Your task to perform on an android device: Search for Italian restaurants on Maps Image 0: 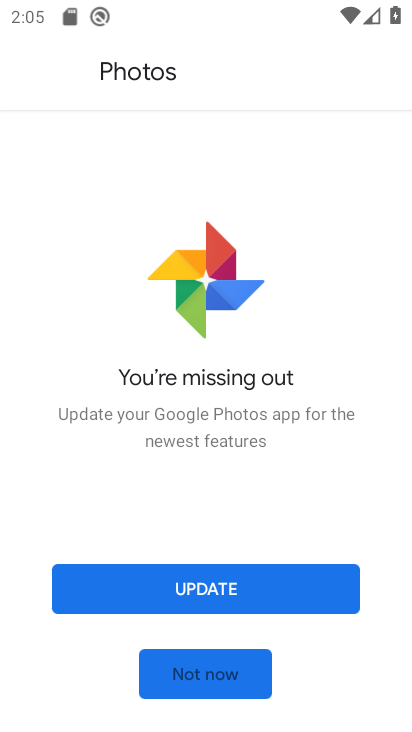
Step 0: press back button
Your task to perform on an android device: Search for Italian restaurants on Maps Image 1: 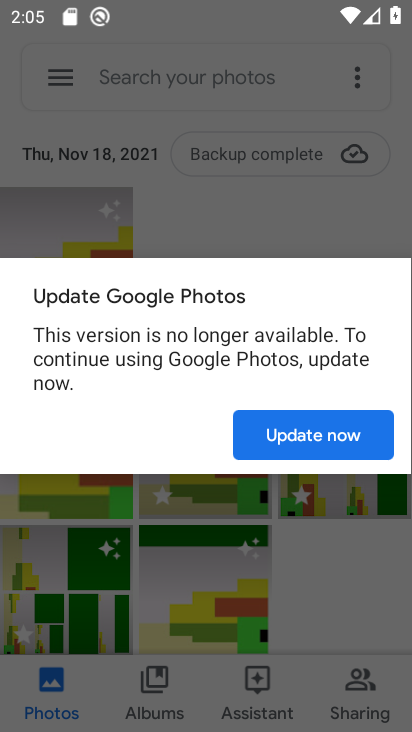
Step 1: press back button
Your task to perform on an android device: Search for Italian restaurants on Maps Image 2: 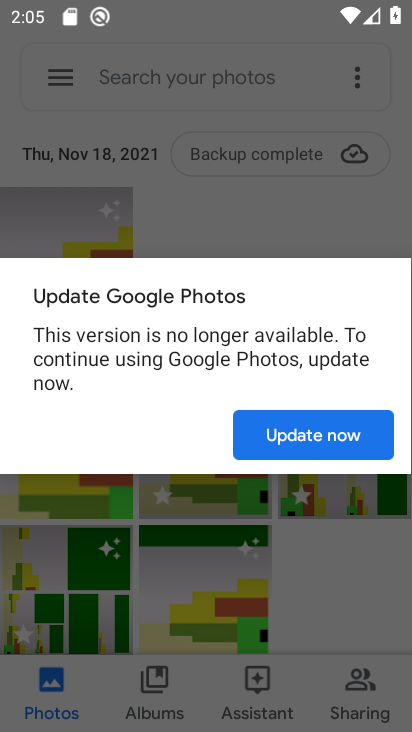
Step 2: press home button
Your task to perform on an android device: Search for Italian restaurants on Maps Image 3: 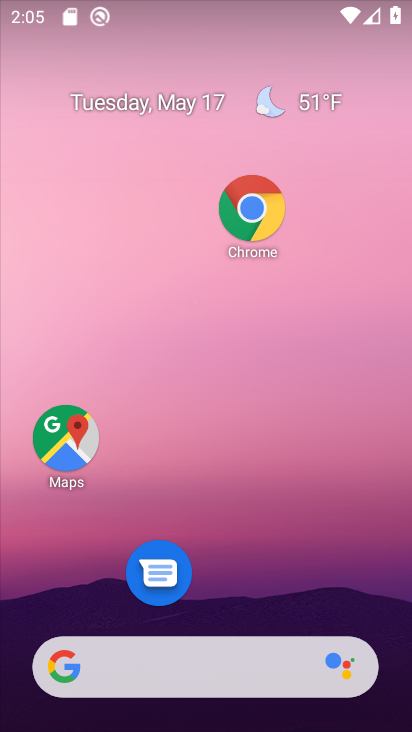
Step 3: drag from (277, 621) to (281, 98)
Your task to perform on an android device: Search for Italian restaurants on Maps Image 4: 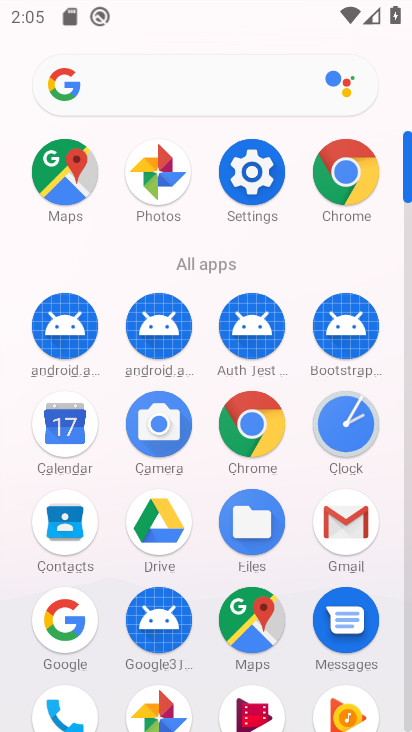
Step 4: click (261, 595)
Your task to perform on an android device: Search for Italian restaurants on Maps Image 5: 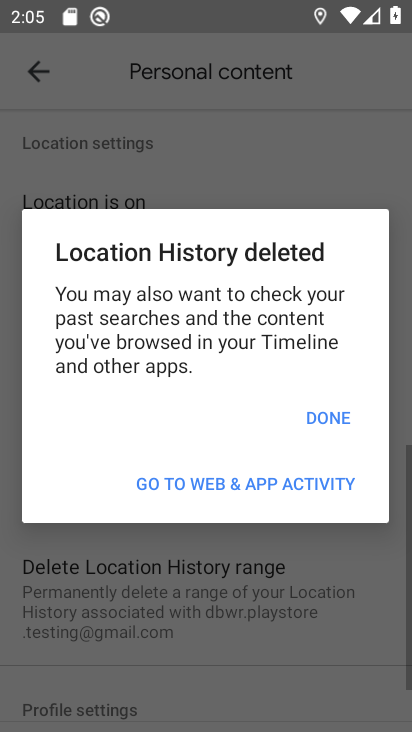
Step 5: click (335, 420)
Your task to perform on an android device: Search for Italian restaurants on Maps Image 6: 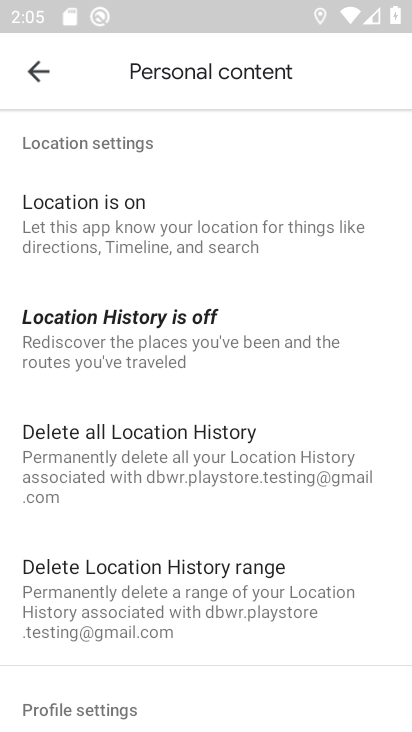
Step 6: click (24, 81)
Your task to perform on an android device: Search for Italian restaurants on Maps Image 7: 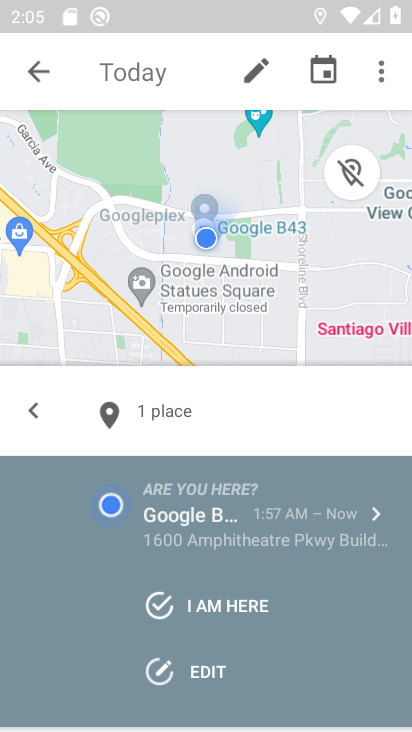
Step 7: click (55, 76)
Your task to perform on an android device: Search for Italian restaurants on Maps Image 8: 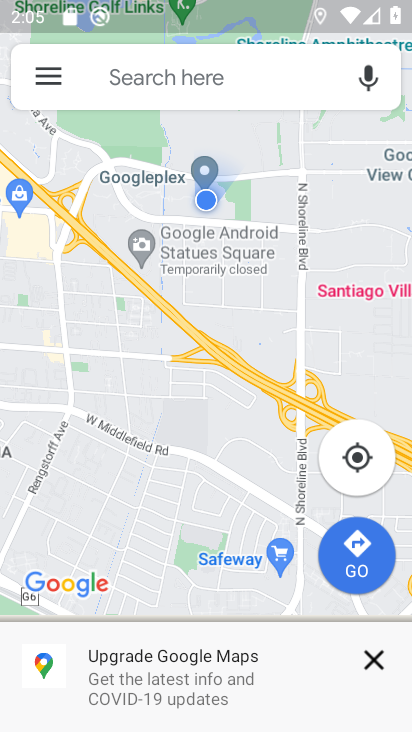
Step 8: click (206, 74)
Your task to perform on an android device: Search for Italian restaurants on Maps Image 9: 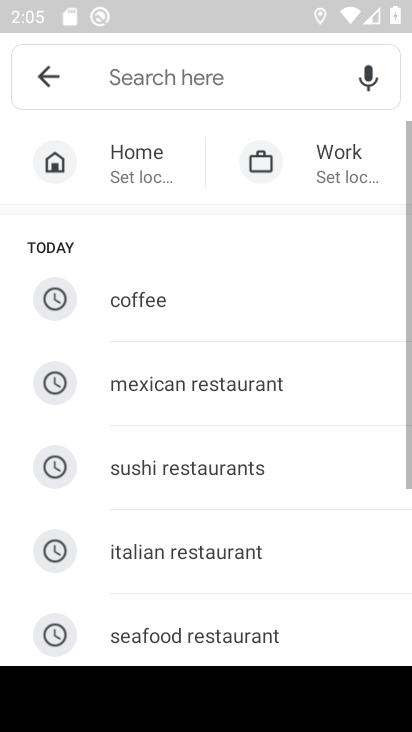
Step 9: click (242, 531)
Your task to perform on an android device: Search for Italian restaurants on Maps Image 10: 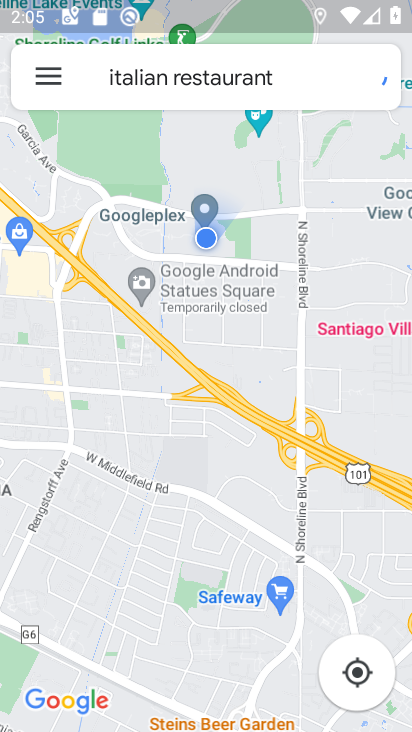
Step 10: task complete